Your task to perform on an android device: snooze an email in the gmail app Image 0: 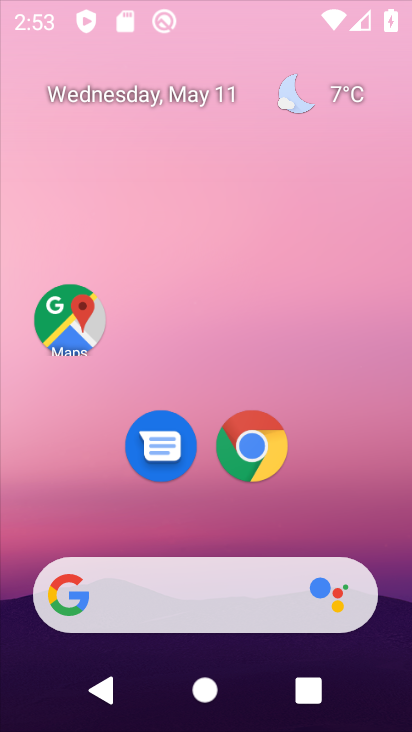
Step 0: click (201, 168)
Your task to perform on an android device: snooze an email in the gmail app Image 1: 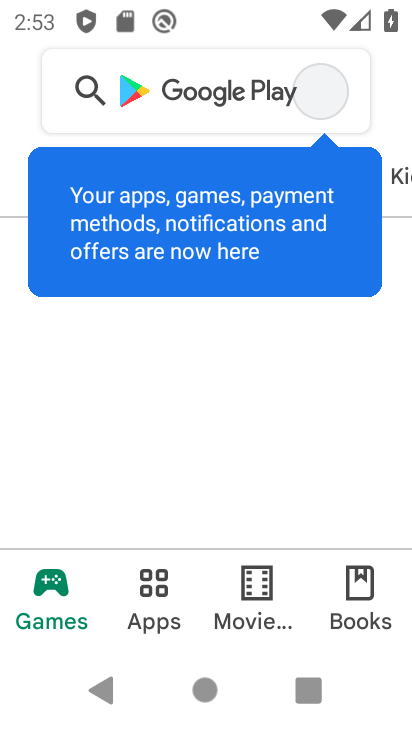
Step 1: press home button
Your task to perform on an android device: snooze an email in the gmail app Image 2: 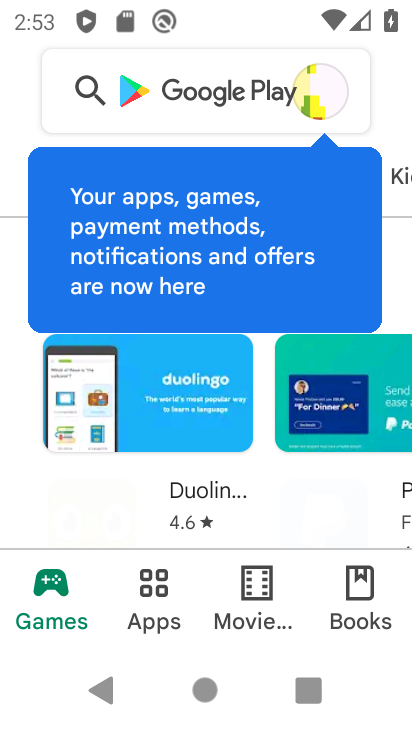
Step 2: press home button
Your task to perform on an android device: snooze an email in the gmail app Image 3: 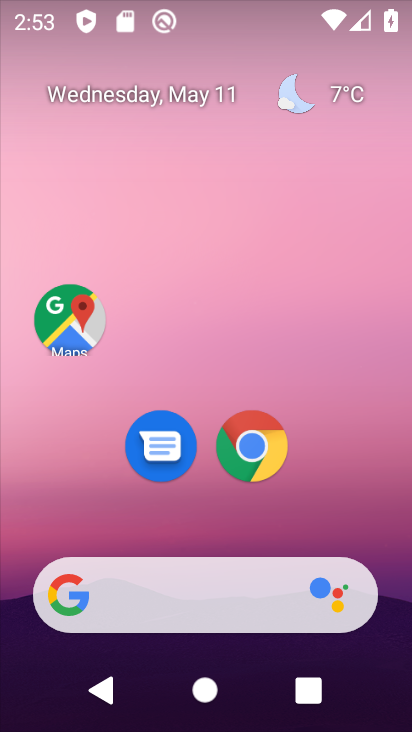
Step 3: drag from (335, 564) to (232, 237)
Your task to perform on an android device: snooze an email in the gmail app Image 4: 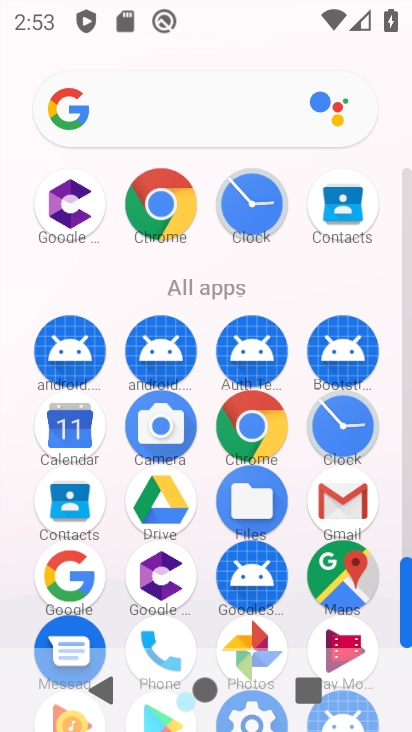
Step 4: click (344, 472)
Your task to perform on an android device: snooze an email in the gmail app Image 5: 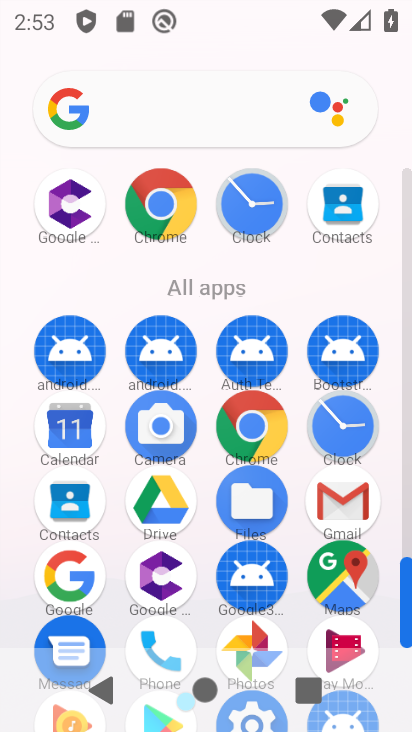
Step 5: click (358, 491)
Your task to perform on an android device: snooze an email in the gmail app Image 6: 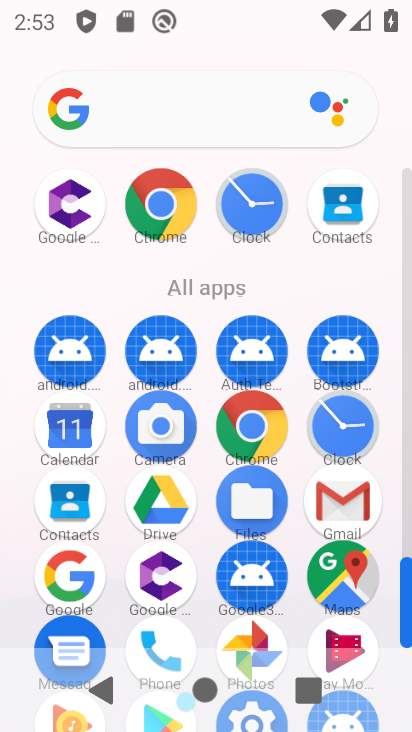
Step 6: click (359, 492)
Your task to perform on an android device: snooze an email in the gmail app Image 7: 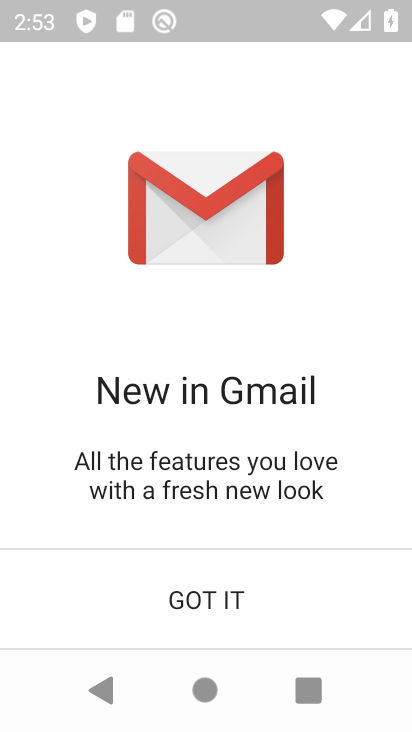
Step 7: click (182, 575)
Your task to perform on an android device: snooze an email in the gmail app Image 8: 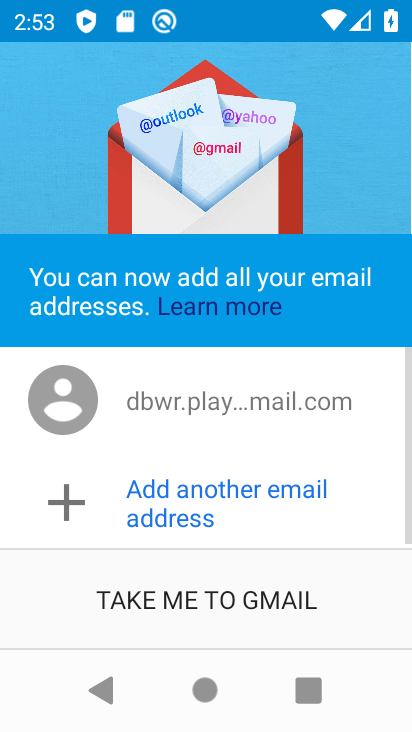
Step 8: click (181, 591)
Your task to perform on an android device: snooze an email in the gmail app Image 9: 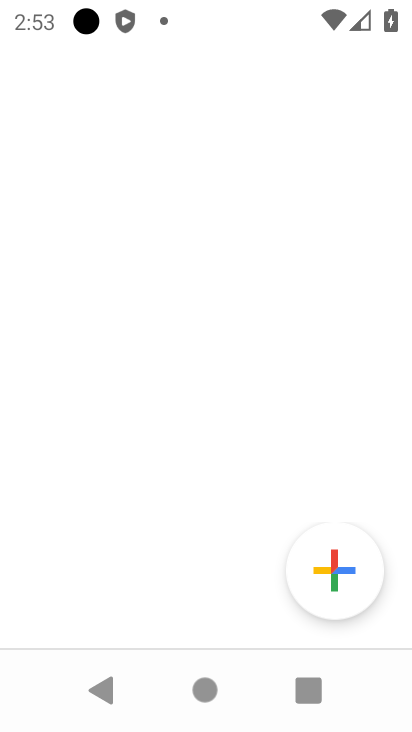
Step 9: click (185, 600)
Your task to perform on an android device: snooze an email in the gmail app Image 10: 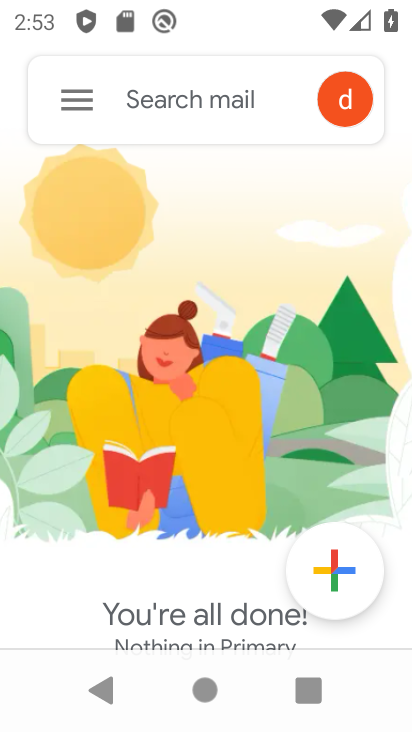
Step 10: click (76, 105)
Your task to perform on an android device: snooze an email in the gmail app Image 11: 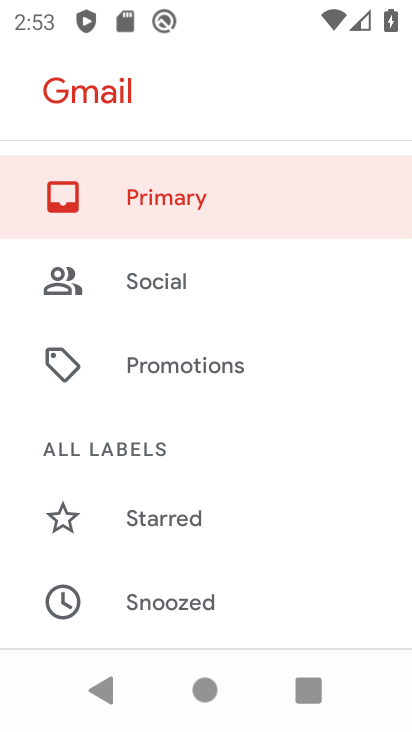
Step 11: drag from (197, 569) to (109, 205)
Your task to perform on an android device: snooze an email in the gmail app Image 12: 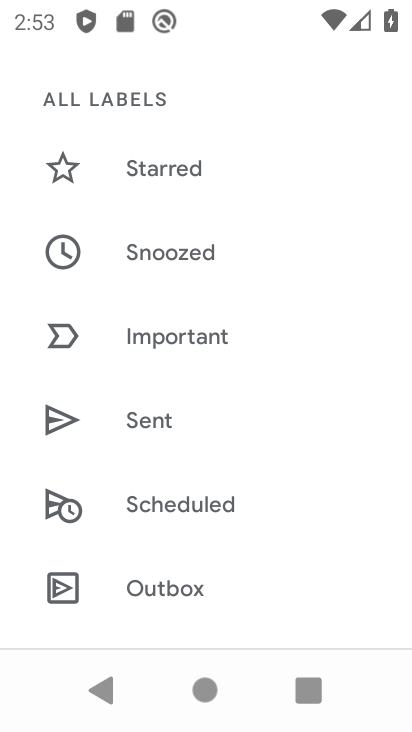
Step 12: drag from (207, 548) to (189, 93)
Your task to perform on an android device: snooze an email in the gmail app Image 13: 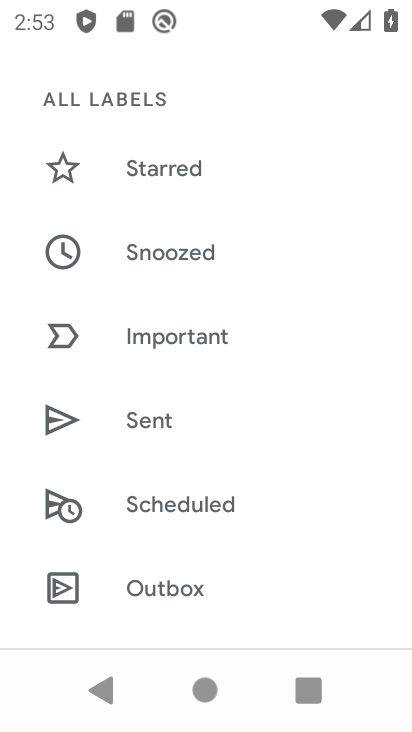
Step 13: drag from (237, 520) to (224, 140)
Your task to perform on an android device: snooze an email in the gmail app Image 14: 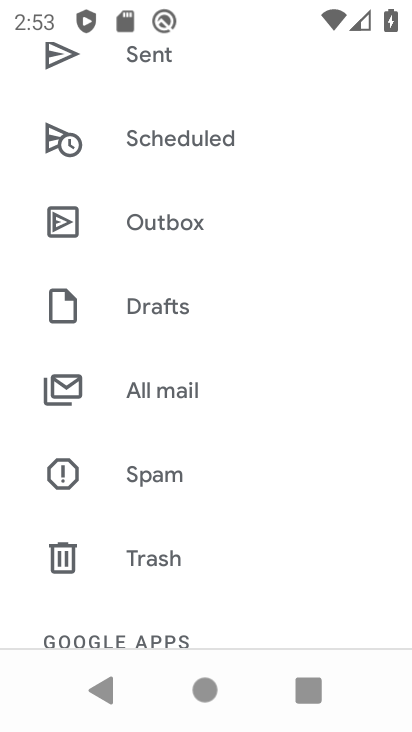
Step 14: click (162, 394)
Your task to perform on an android device: snooze an email in the gmail app Image 15: 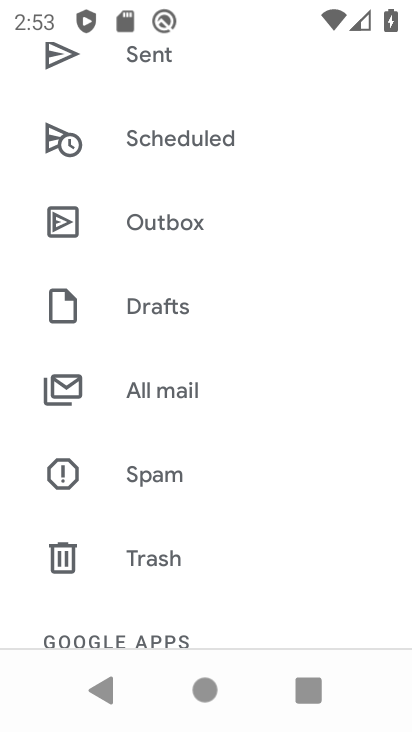
Step 15: click (164, 395)
Your task to perform on an android device: snooze an email in the gmail app Image 16: 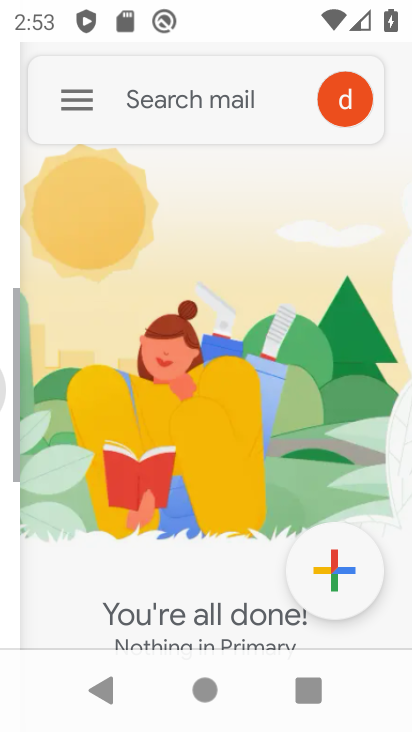
Step 16: click (169, 397)
Your task to perform on an android device: snooze an email in the gmail app Image 17: 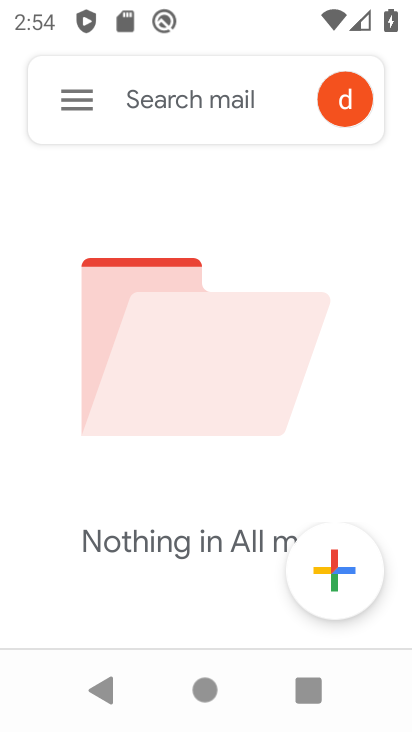
Step 17: task complete